Your task to perform on an android device: Open eBay Image 0: 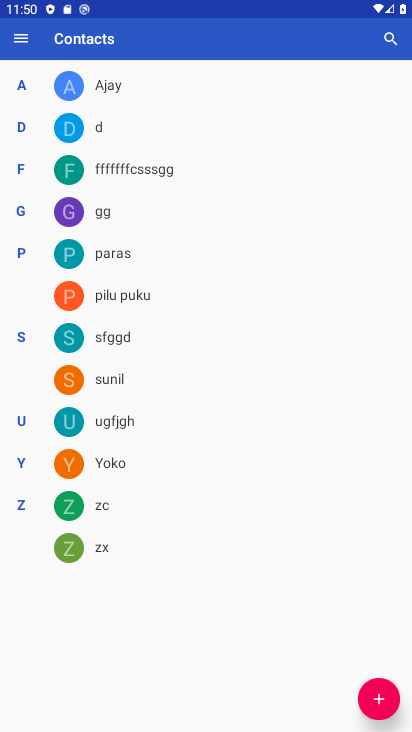
Step 0: press home button
Your task to perform on an android device: Open eBay Image 1: 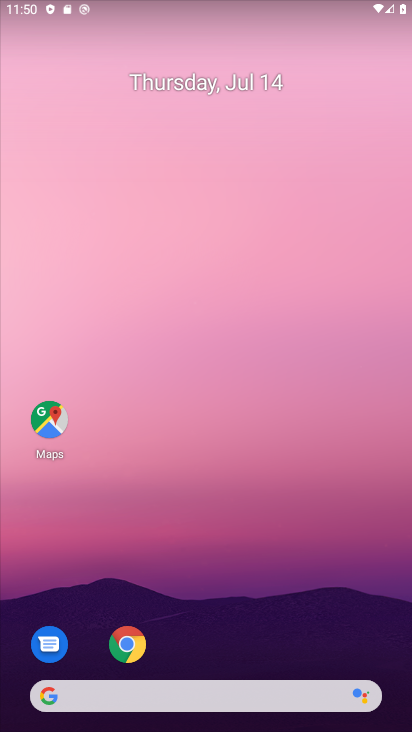
Step 1: click (134, 645)
Your task to perform on an android device: Open eBay Image 2: 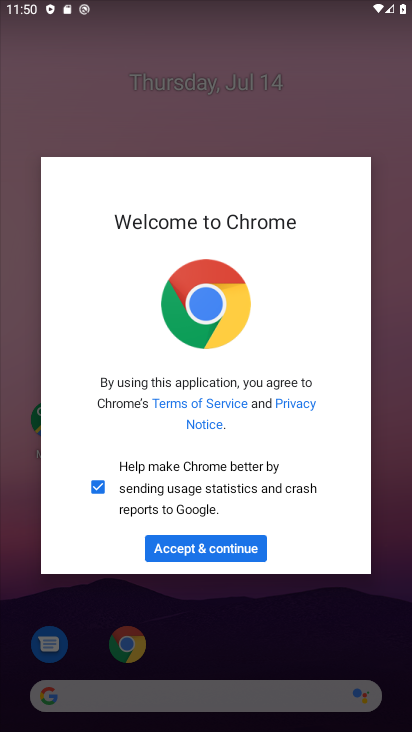
Step 2: click (194, 545)
Your task to perform on an android device: Open eBay Image 3: 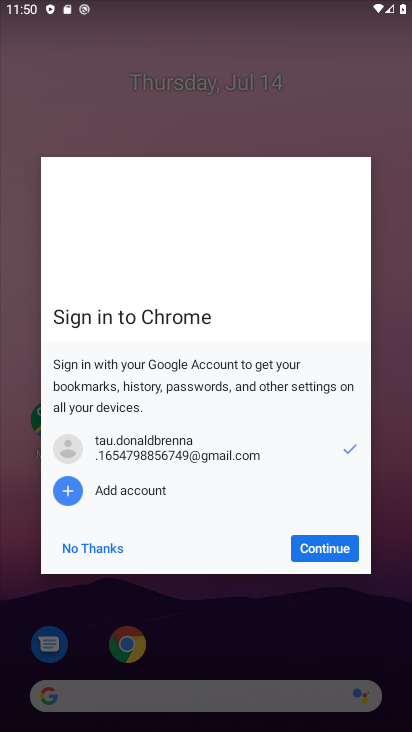
Step 3: click (308, 551)
Your task to perform on an android device: Open eBay Image 4: 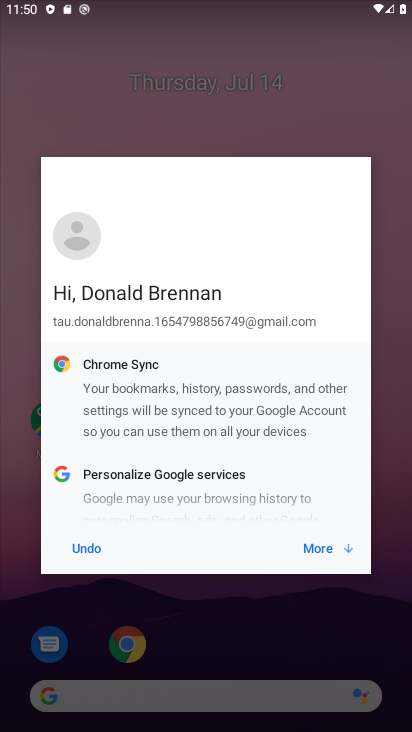
Step 4: click (308, 551)
Your task to perform on an android device: Open eBay Image 5: 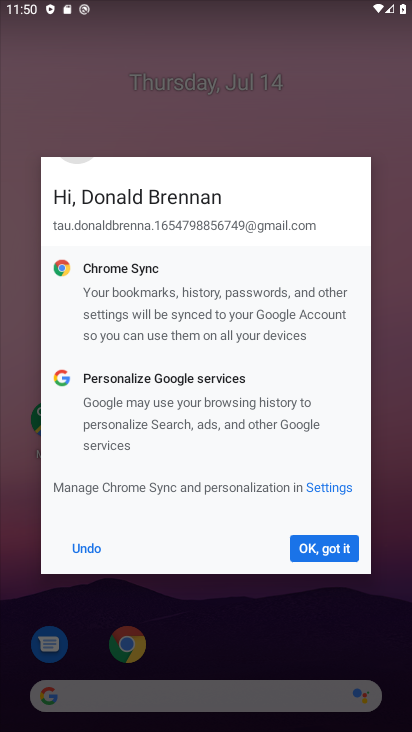
Step 5: click (308, 551)
Your task to perform on an android device: Open eBay Image 6: 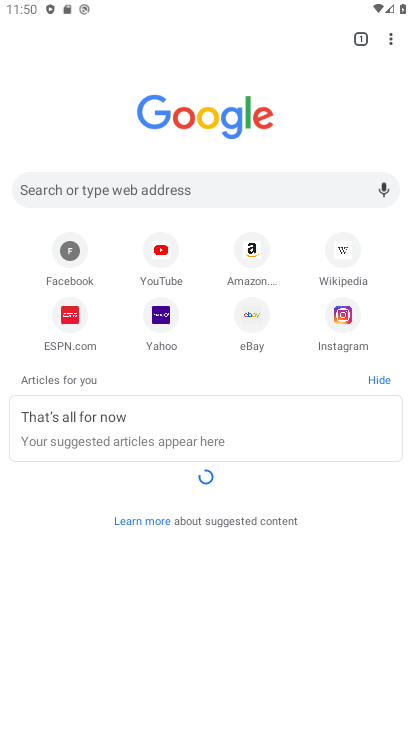
Step 6: click (258, 314)
Your task to perform on an android device: Open eBay Image 7: 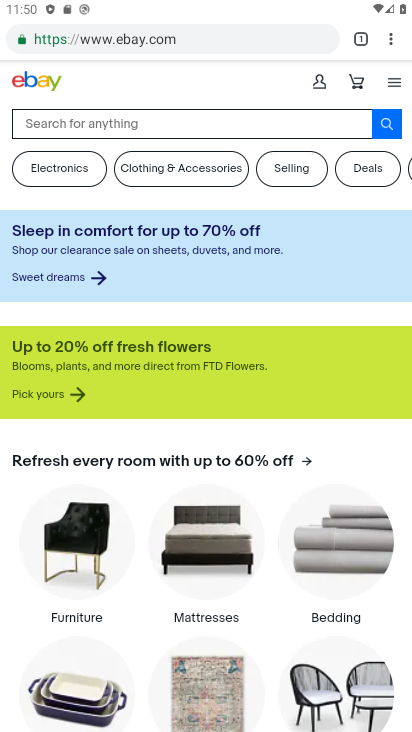
Step 7: task complete